Your task to perform on an android device: Go to battery settings Image 0: 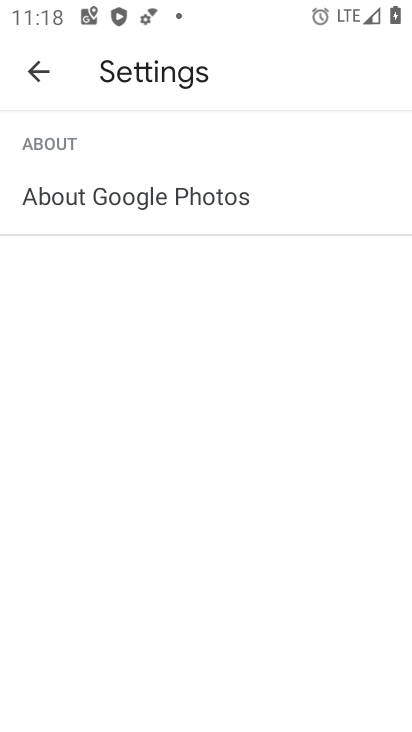
Step 0: press home button
Your task to perform on an android device: Go to battery settings Image 1: 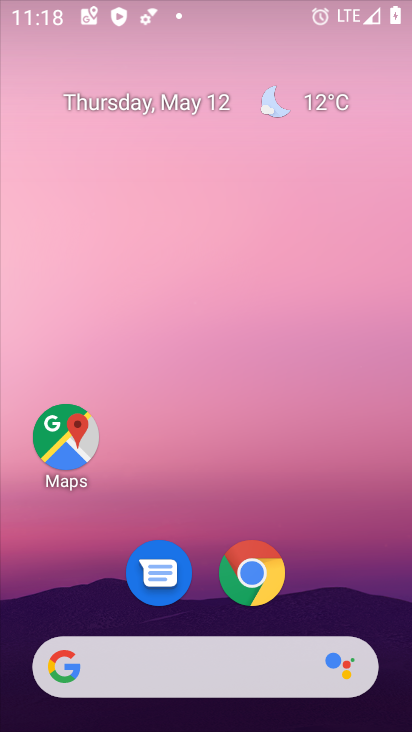
Step 1: drag from (262, 719) to (151, 56)
Your task to perform on an android device: Go to battery settings Image 2: 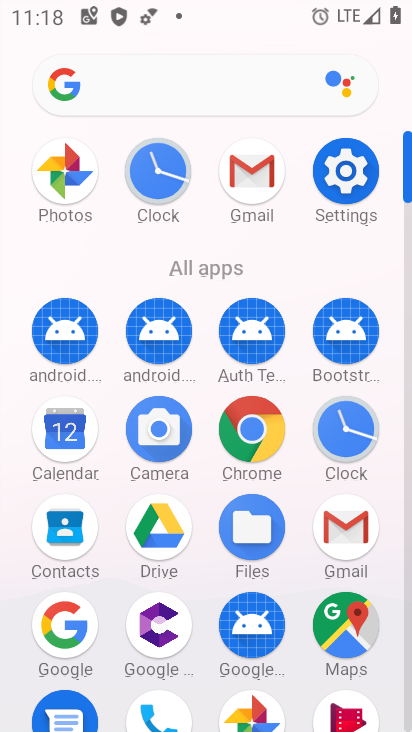
Step 2: click (339, 174)
Your task to perform on an android device: Go to battery settings Image 3: 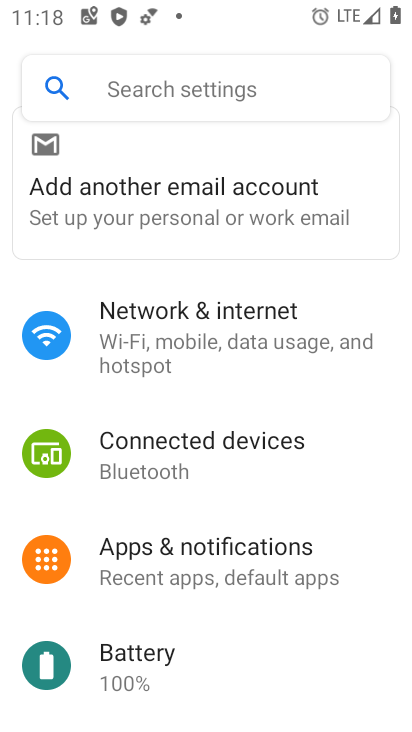
Step 3: click (168, 650)
Your task to perform on an android device: Go to battery settings Image 4: 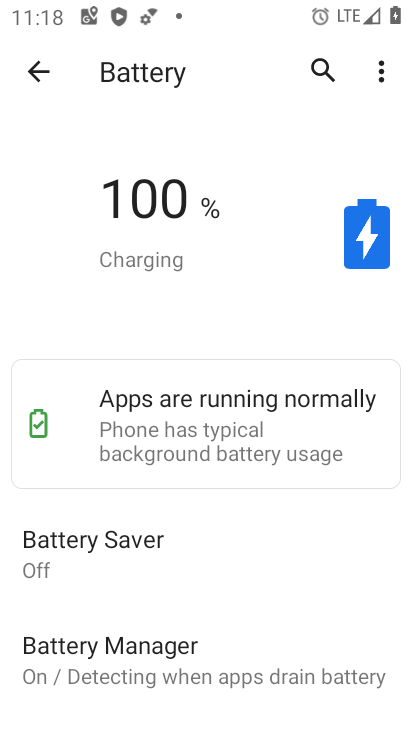
Step 4: task complete